Your task to perform on an android device: check the backup settings in the google photos Image 0: 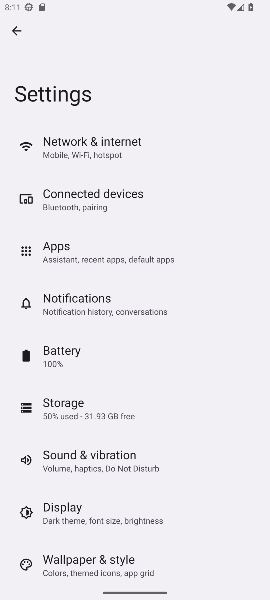
Step 0: press home button
Your task to perform on an android device: check the backup settings in the google photos Image 1: 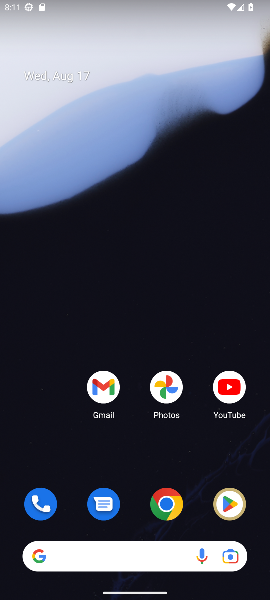
Step 1: drag from (133, 466) to (141, 238)
Your task to perform on an android device: check the backup settings in the google photos Image 2: 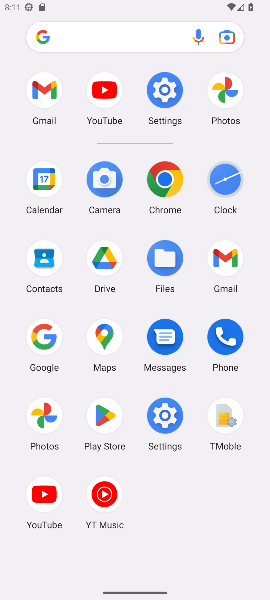
Step 2: click (228, 103)
Your task to perform on an android device: check the backup settings in the google photos Image 3: 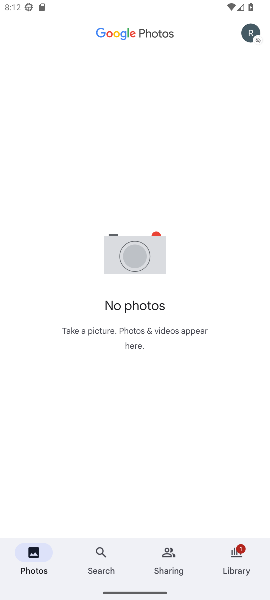
Step 3: click (256, 40)
Your task to perform on an android device: check the backup settings in the google photos Image 4: 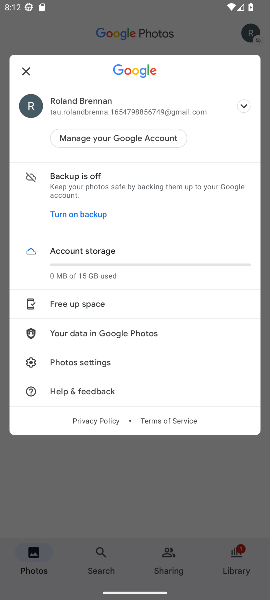
Step 4: click (140, 194)
Your task to perform on an android device: check the backup settings in the google photos Image 5: 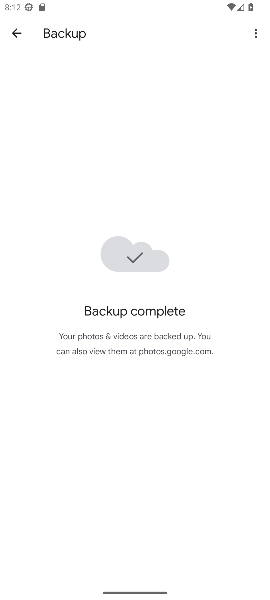
Step 5: click (258, 26)
Your task to perform on an android device: check the backup settings in the google photos Image 6: 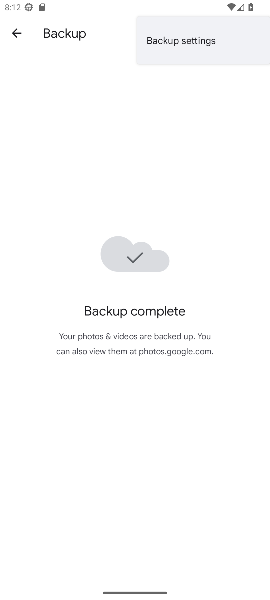
Step 6: click (211, 47)
Your task to perform on an android device: check the backup settings in the google photos Image 7: 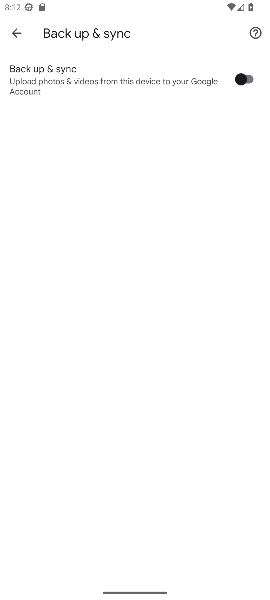
Step 7: task complete